Your task to perform on an android device: Clear the cart on ebay. Search for razer naga on ebay, select the first entry, and add it to the cart. Image 0: 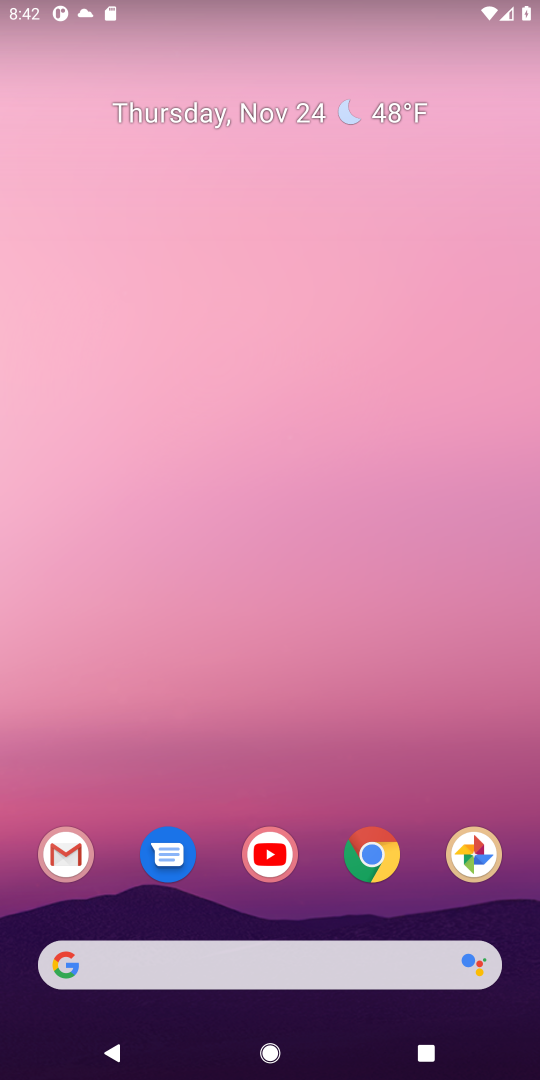
Step 0: click (381, 857)
Your task to perform on an android device: Clear the cart on ebay. Search for razer naga on ebay, select the first entry, and add it to the cart. Image 1: 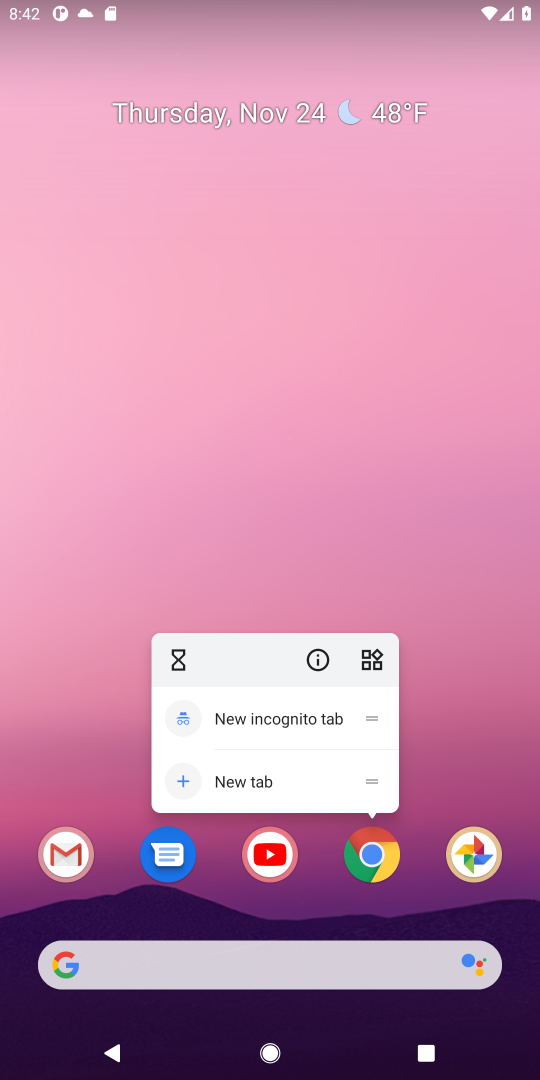
Step 1: click (368, 864)
Your task to perform on an android device: Clear the cart on ebay. Search for razer naga on ebay, select the first entry, and add it to the cart. Image 2: 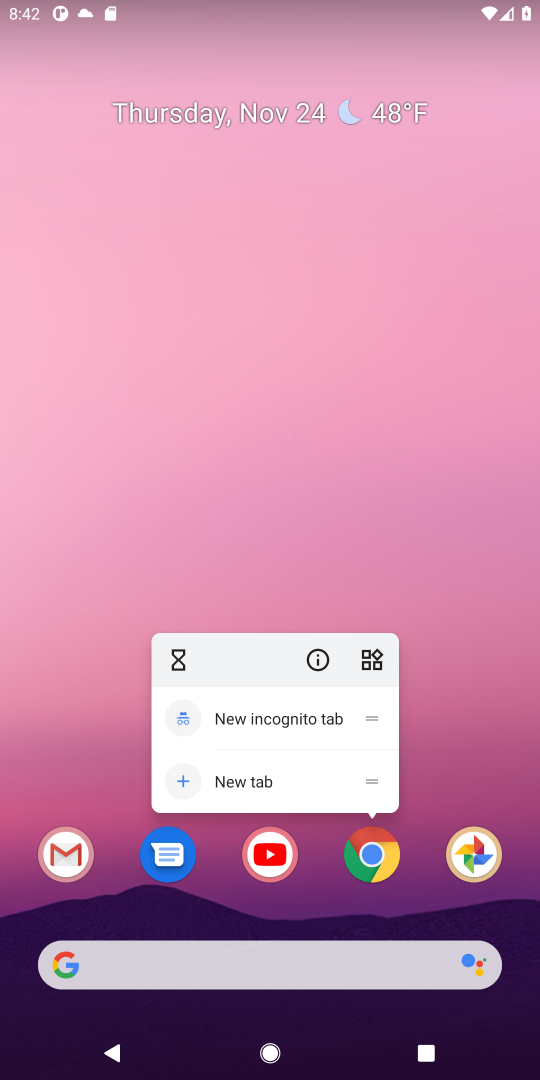
Step 2: click (379, 861)
Your task to perform on an android device: Clear the cart on ebay. Search for razer naga on ebay, select the first entry, and add it to the cart. Image 3: 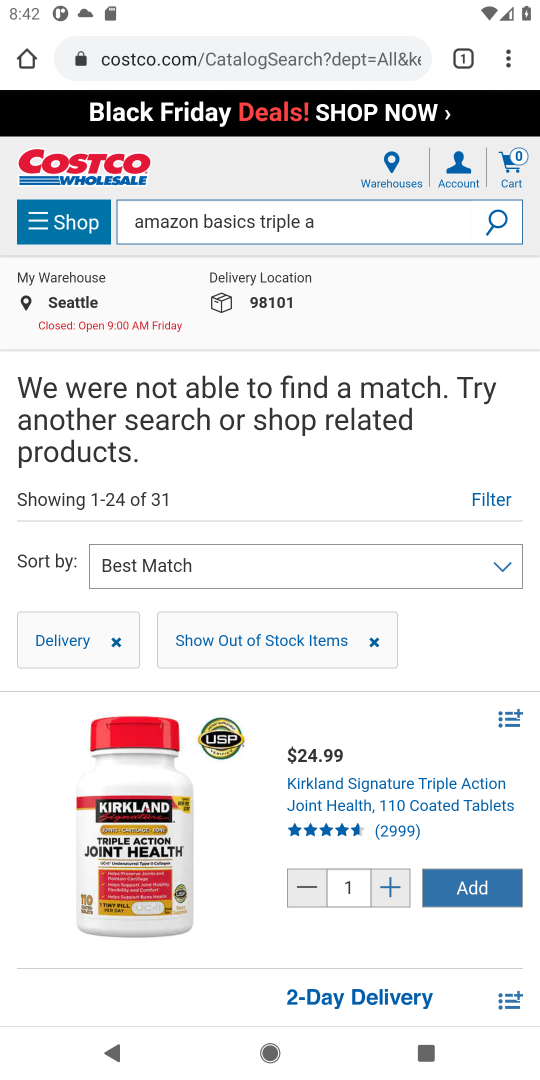
Step 3: click (214, 64)
Your task to perform on an android device: Clear the cart on ebay. Search for razer naga on ebay, select the first entry, and add it to the cart. Image 4: 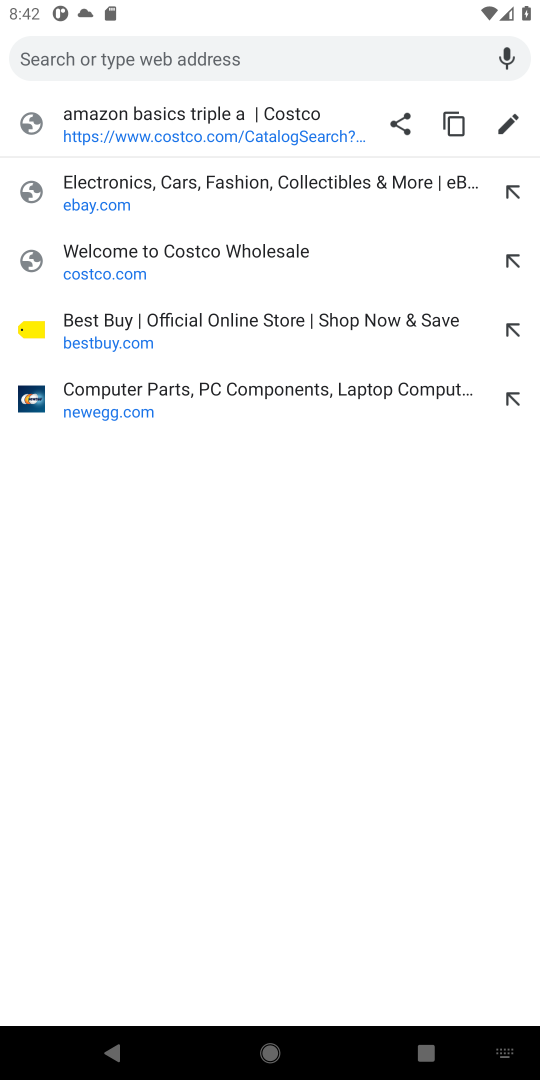
Step 4: click (93, 193)
Your task to perform on an android device: Clear the cart on ebay. Search for razer naga on ebay, select the first entry, and add it to the cart. Image 5: 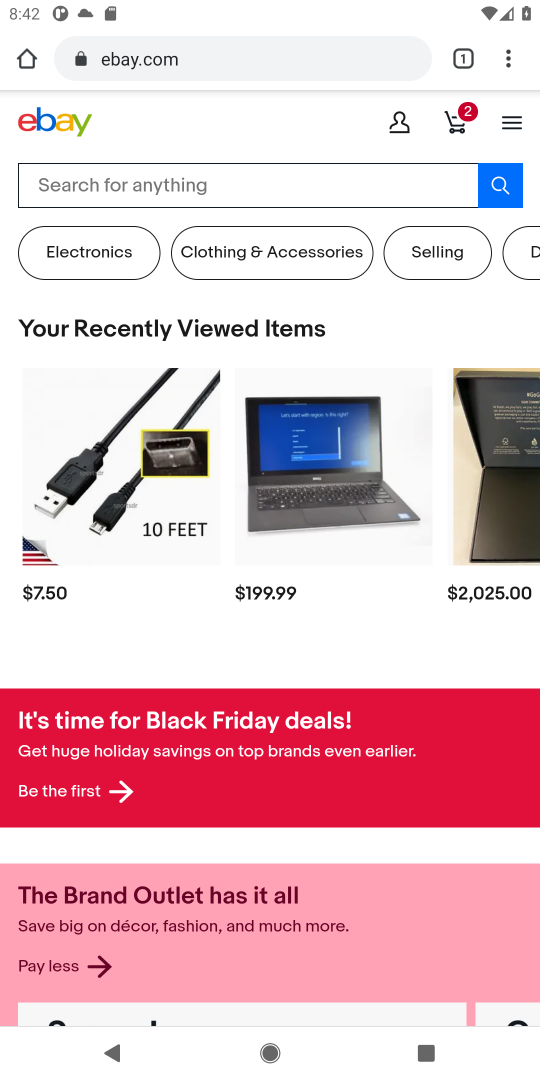
Step 5: click (463, 126)
Your task to perform on an android device: Clear the cart on ebay. Search for razer naga on ebay, select the first entry, and add it to the cart. Image 6: 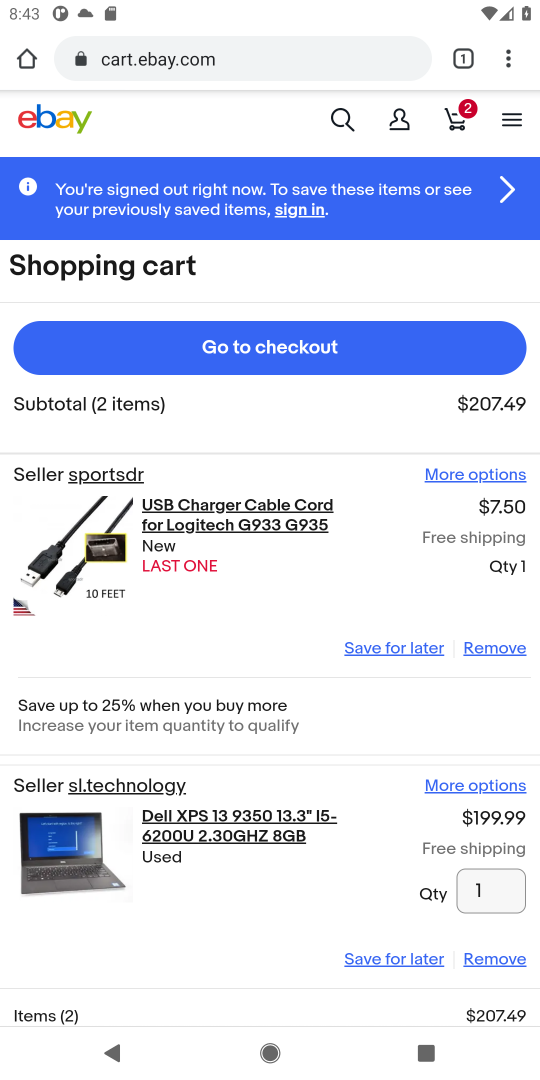
Step 6: click (492, 648)
Your task to perform on an android device: Clear the cart on ebay. Search for razer naga on ebay, select the first entry, and add it to the cart. Image 7: 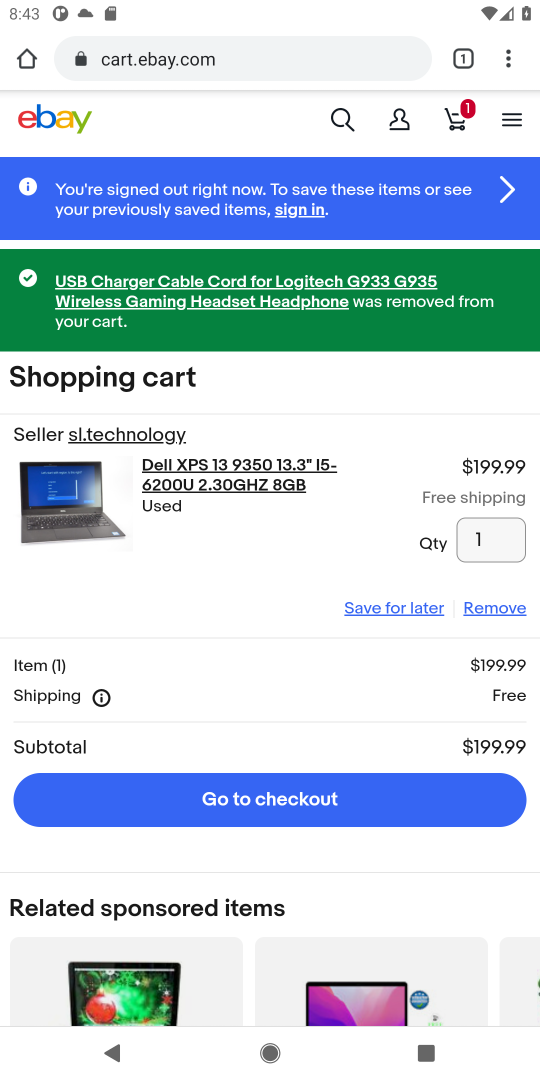
Step 7: click (492, 611)
Your task to perform on an android device: Clear the cart on ebay. Search for razer naga on ebay, select the first entry, and add it to the cart. Image 8: 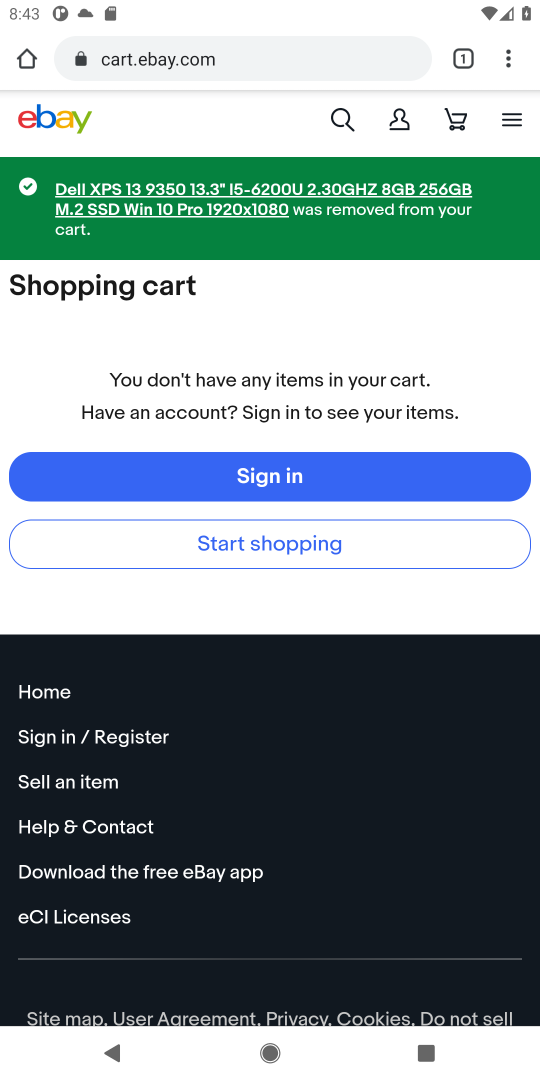
Step 8: click (338, 113)
Your task to perform on an android device: Clear the cart on ebay. Search for razer naga on ebay, select the first entry, and add it to the cart. Image 9: 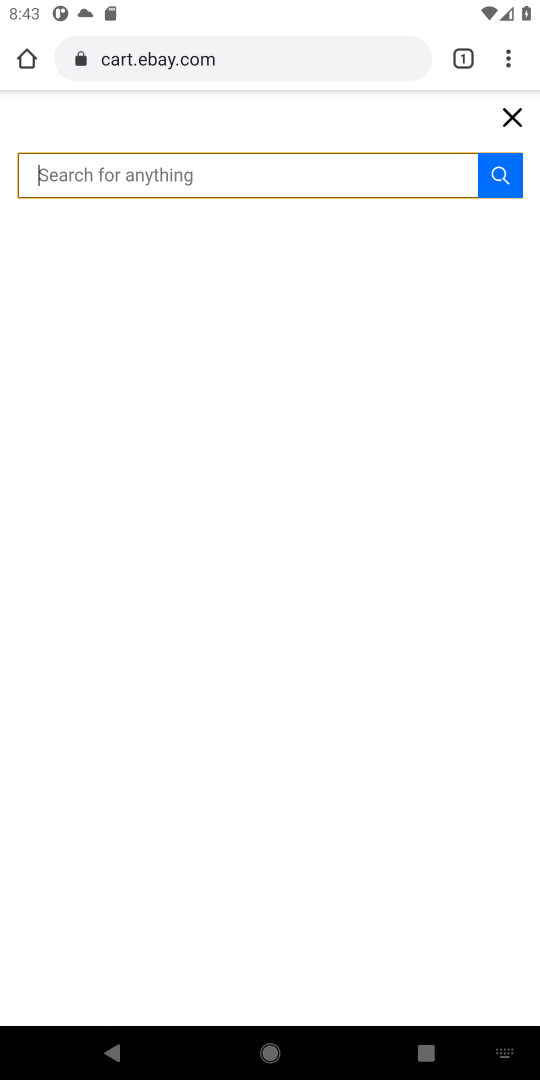
Step 9: type "razer naga "
Your task to perform on an android device: Clear the cart on ebay. Search for razer naga on ebay, select the first entry, and add it to the cart. Image 10: 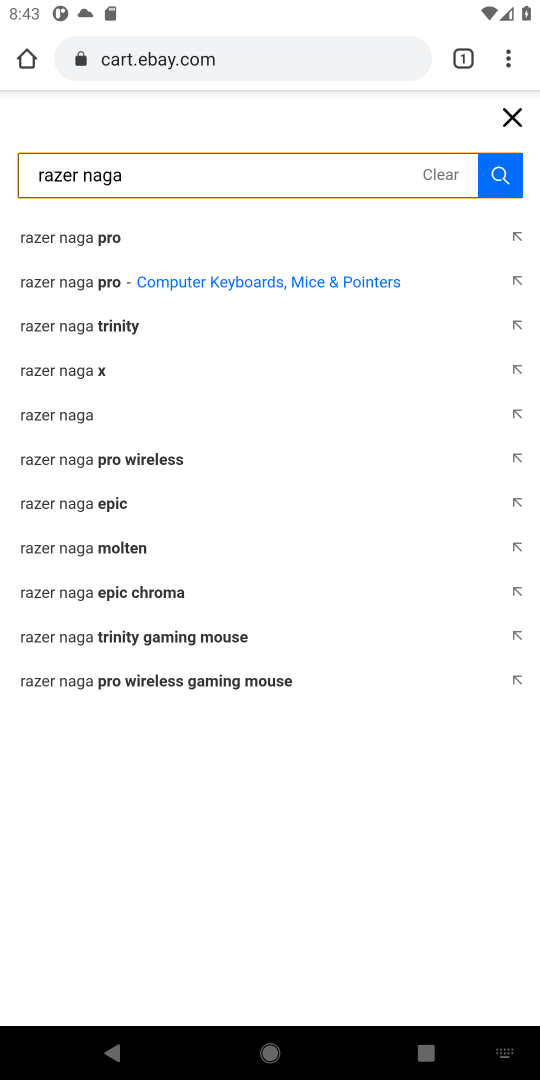
Step 10: click (74, 413)
Your task to perform on an android device: Clear the cart on ebay. Search for razer naga on ebay, select the first entry, and add it to the cart. Image 11: 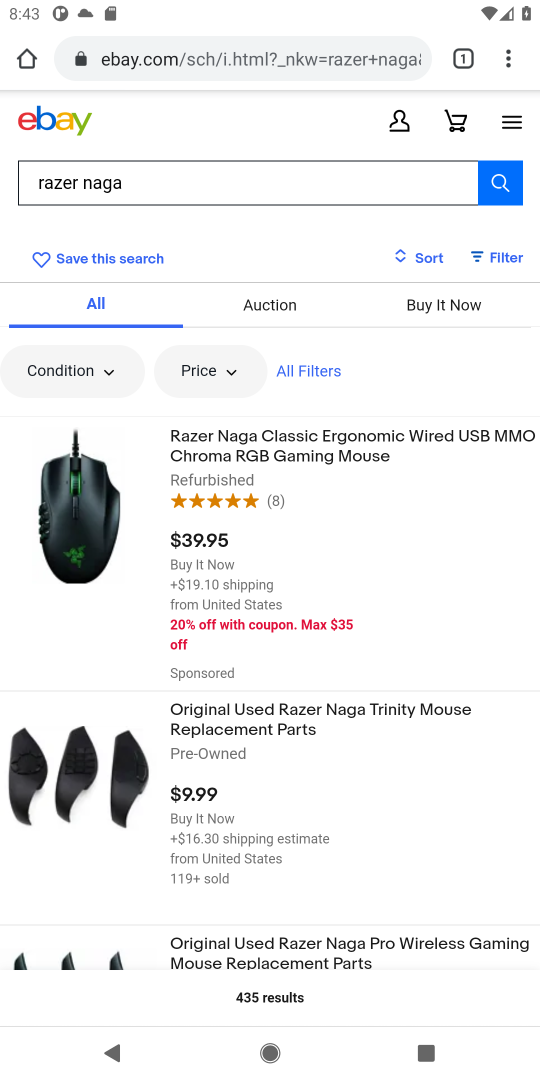
Step 11: click (95, 522)
Your task to perform on an android device: Clear the cart on ebay. Search for razer naga on ebay, select the first entry, and add it to the cart. Image 12: 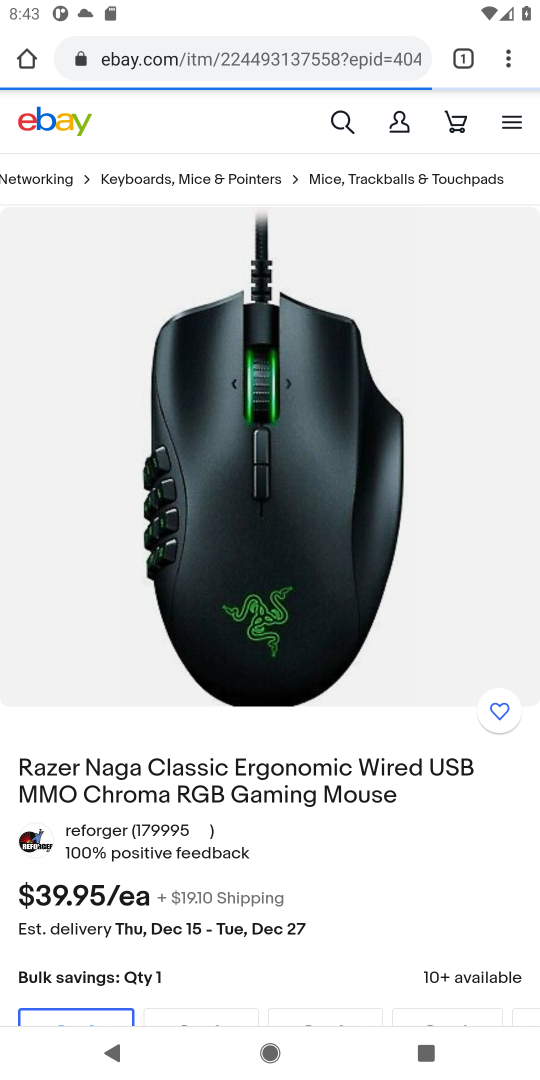
Step 12: drag from (233, 680) to (255, 314)
Your task to perform on an android device: Clear the cart on ebay. Search for razer naga on ebay, select the first entry, and add it to the cart. Image 13: 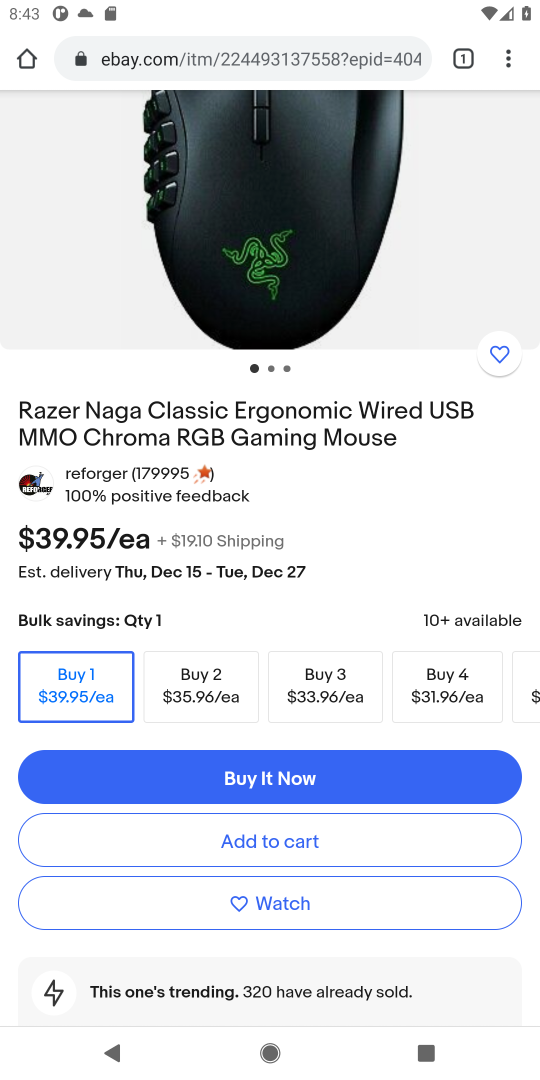
Step 13: click (253, 843)
Your task to perform on an android device: Clear the cart on ebay. Search for razer naga on ebay, select the first entry, and add it to the cart. Image 14: 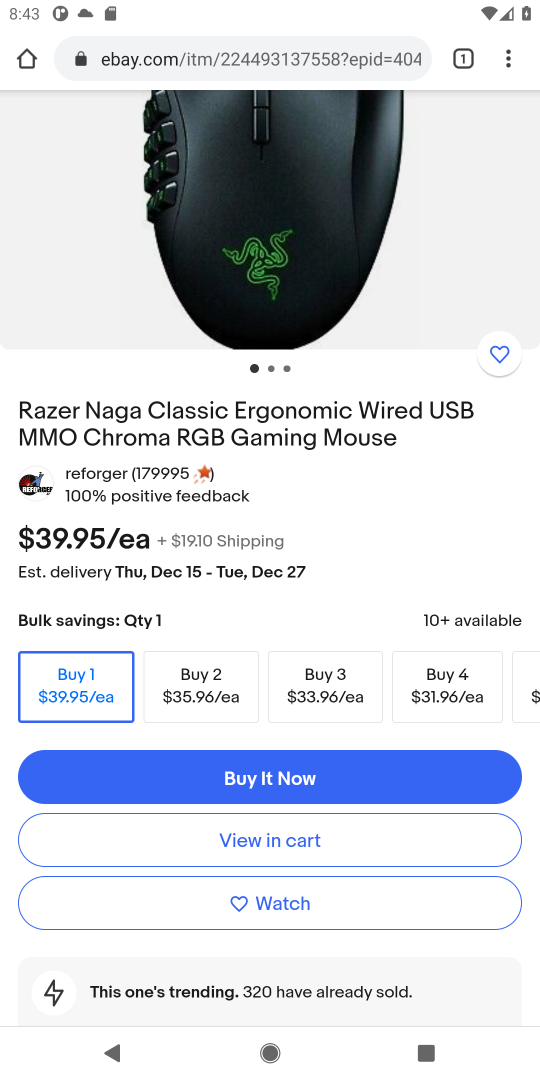
Step 14: task complete